Your task to perform on an android device: Go to Reddit.com Image 0: 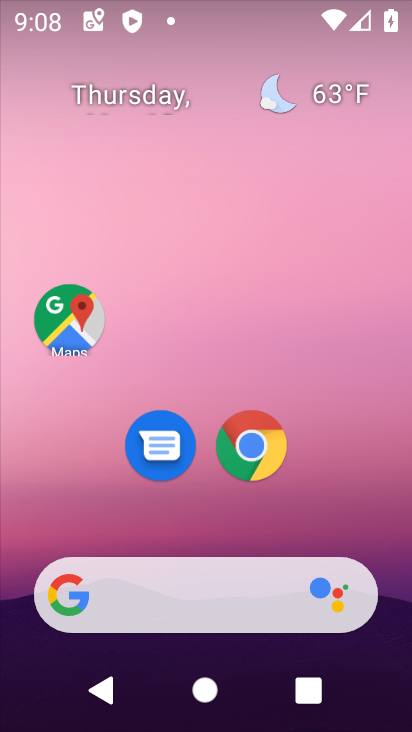
Step 0: click (275, 433)
Your task to perform on an android device: Go to Reddit.com Image 1: 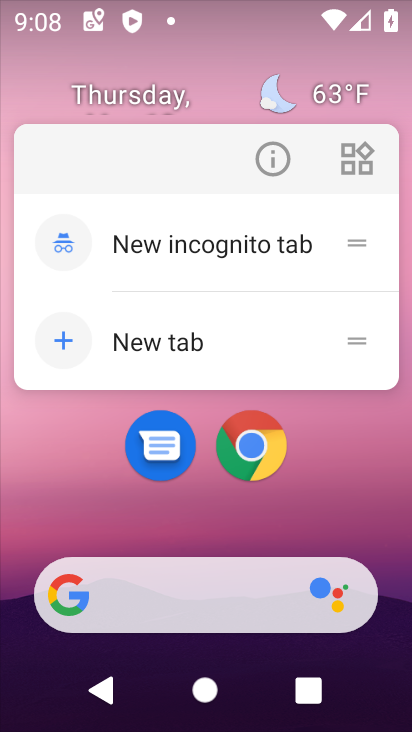
Step 1: click (254, 442)
Your task to perform on an android device: Go to Reddit.com Image 2: 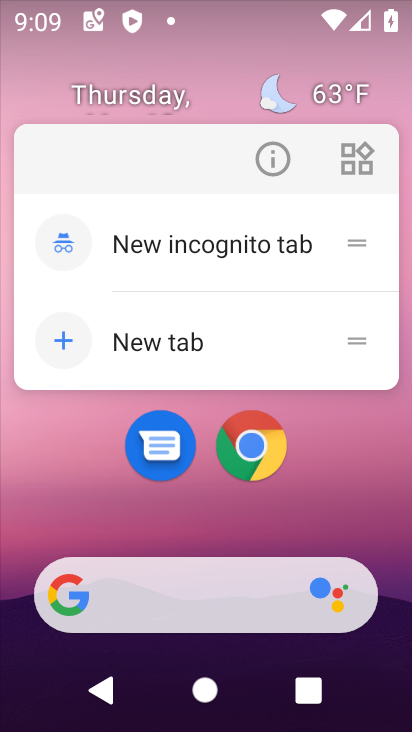
Step 2: click (253, 444)
Your task to perform on an android device: Go to Reddit.com Image 3: 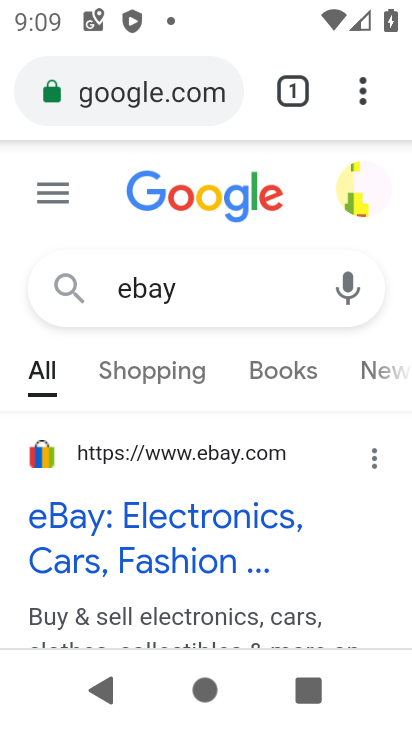
Step 3: click (177, 84)
Your task to perform on an android device: Go to Reddit.com Image 4: 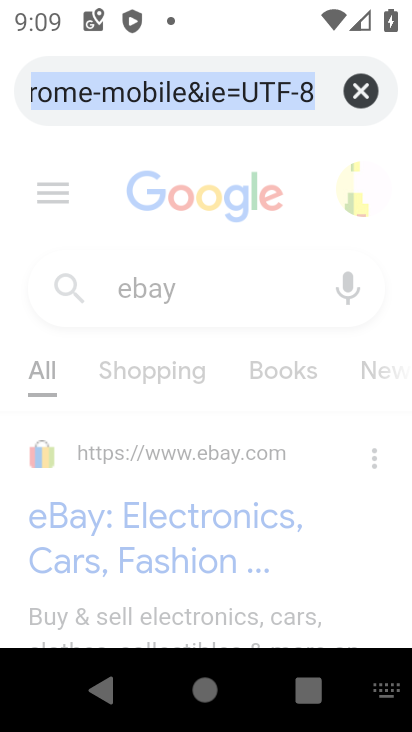
Step 4: type "Reddit.com"
Your task to perform on an android device: Go to Reddit.com Image 5: 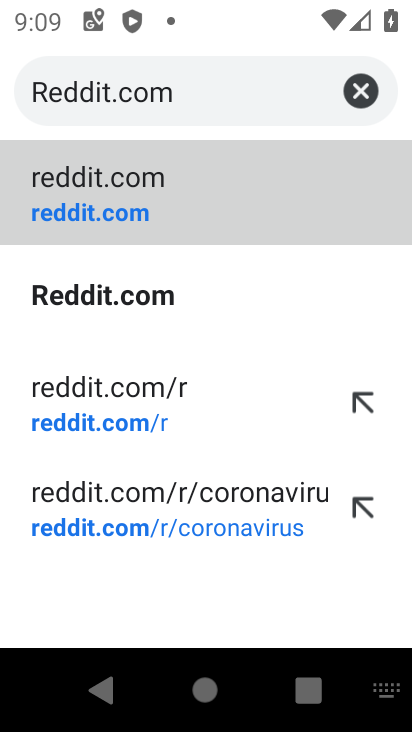
Step 5: click (219, 196)
Your task to perform on an android device: Go to Reddit.com Image 6: 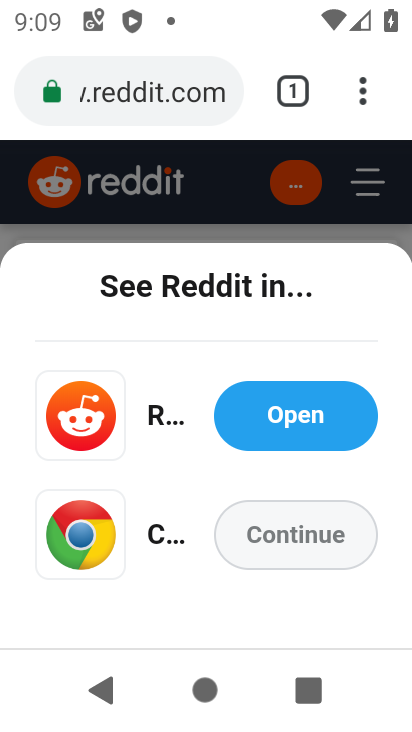
Step 6: task complete